Your task to perform on an android device: turn on translation in the chrome app Image 0: 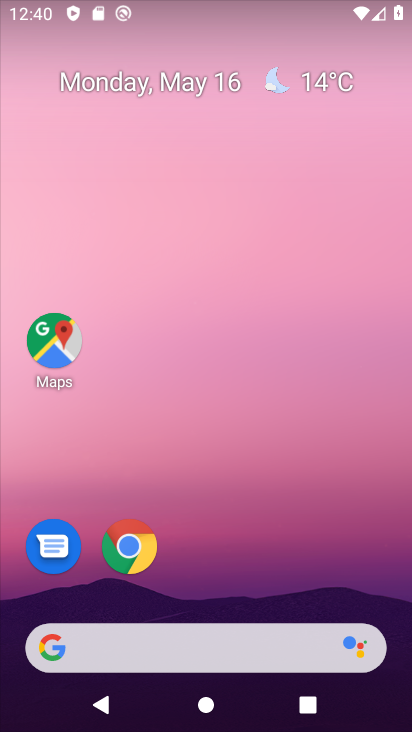
Step 0: drag from (197, 672) to (372, 80)
Your task to perform on an android device: turn on translation in the chrome app Image 1: 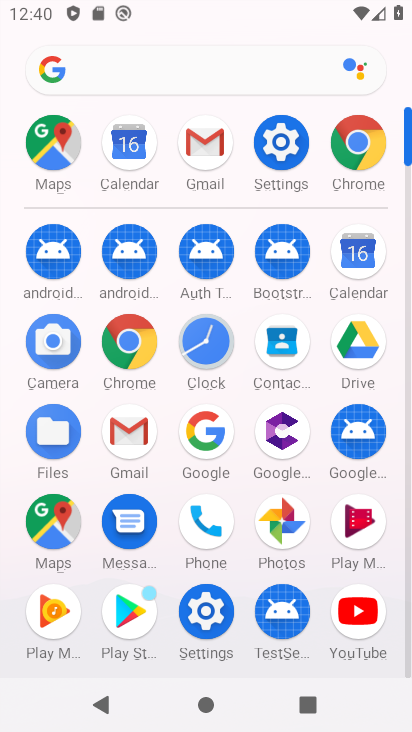
Step 1: click (360, 144)
Your task to perform on an android device: turn on translation in the chrome app Image 2: 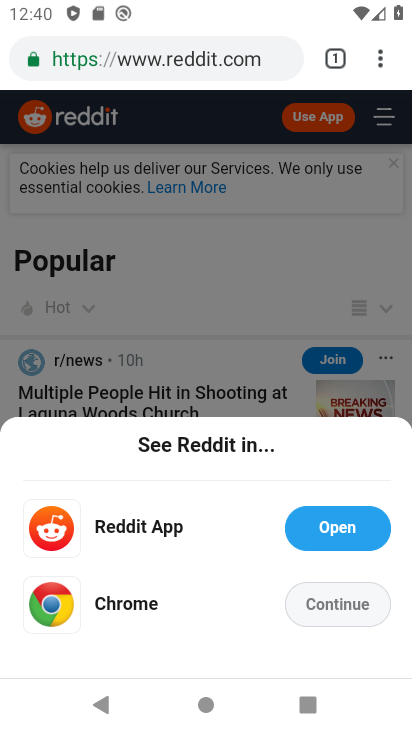
Step 2: click (376, 58)
Your task to perform on an android device: turn on translation in the chrome app Image 3: 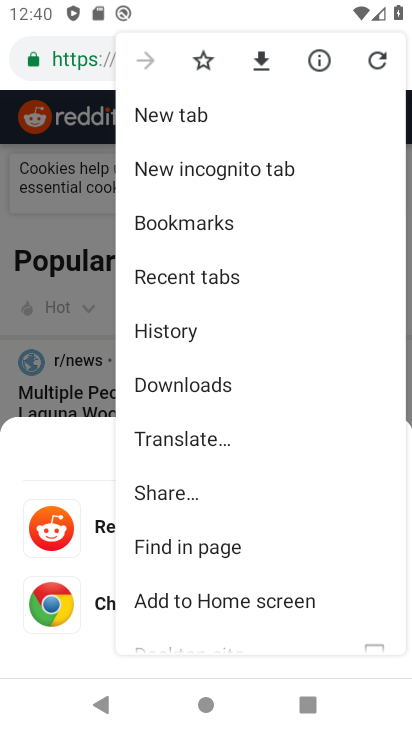
Step 3: drag from (179, 496) to (275, 380)
Your task to perform on an android device: turn on translation in the chrome app Image 4: 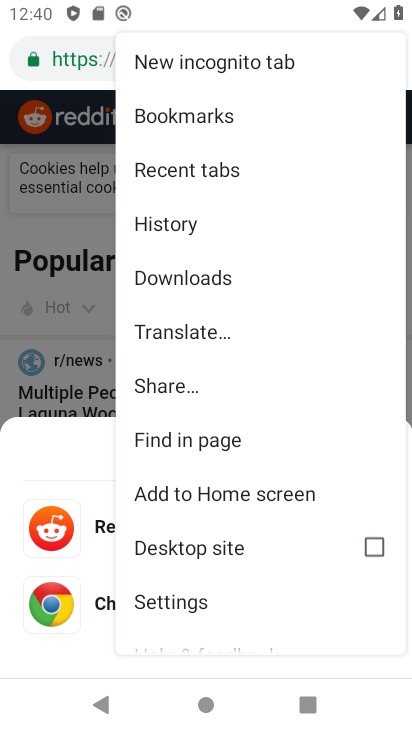
Step 4: click (173, 592)
Your task to perform on an android device: turn on translation in the chrome app Image 5: 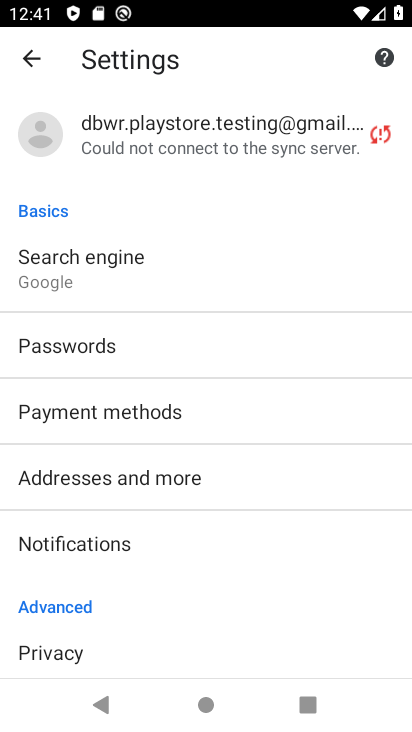
Step 5: drag from (85, 636) to (184, 371)
Your task to perform on an android device: turn on translation in the chrome app Image 6: 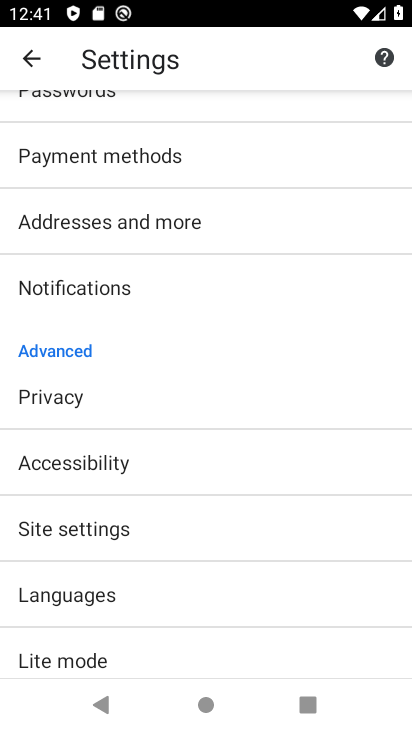
Step 6: drag from (103, 623) to (176, 474)
Your task to perform on an android device: turn on translation in the chrome app Image 7: 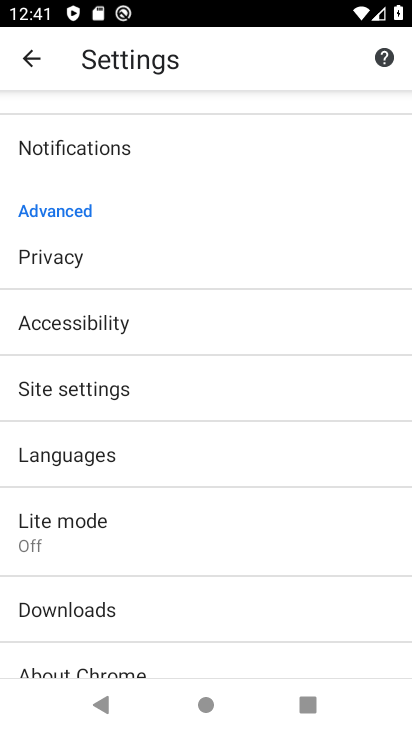
Step 7: click (117, 456)
Your task to perform on an android device: turn on translation in the chrome app Image 8: 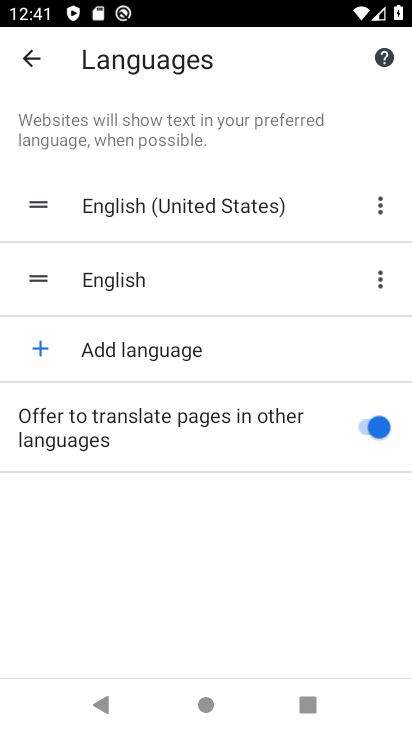
Step 8: click (262, 379)
Your task to perform on an android device: turn on translation in the chrome app Image 9: 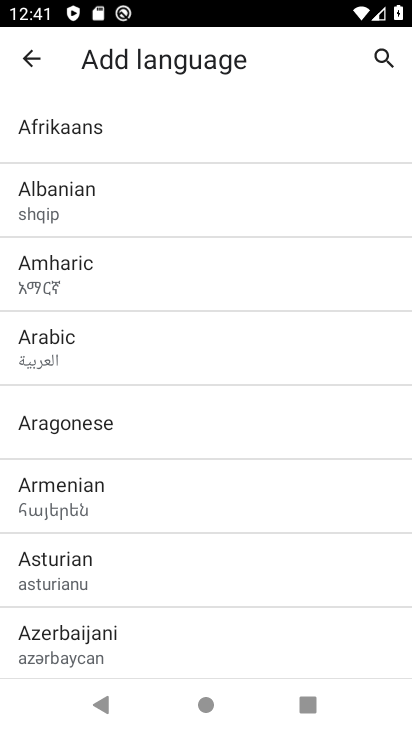
Step 9: click (24, 65)
Your task to perform on an android device: turn on translation in the chrome app Image 10: 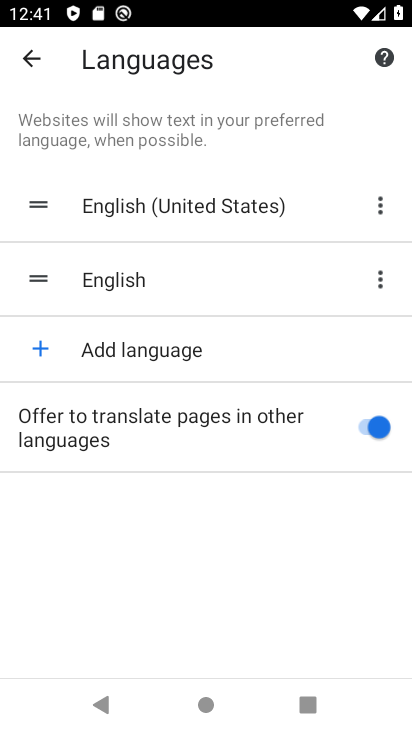
Step 10: click (362, 416)
Your task to perform on an android device: turn on translation in the chrome app Image 11: 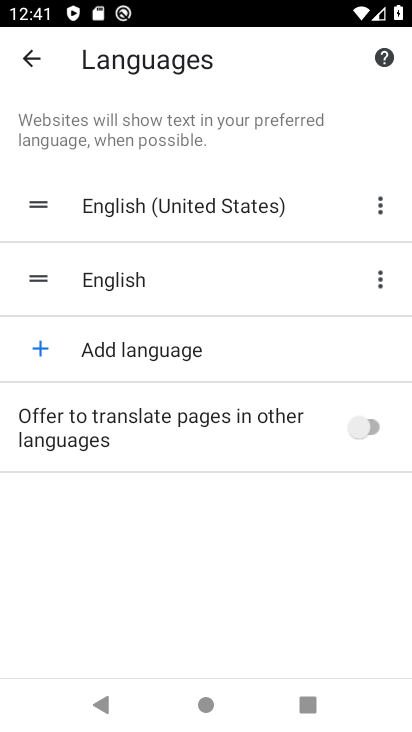
Step 11: click (362, 416)
Your task to perform on an android device: turn on translation in the chrome app Image 12: 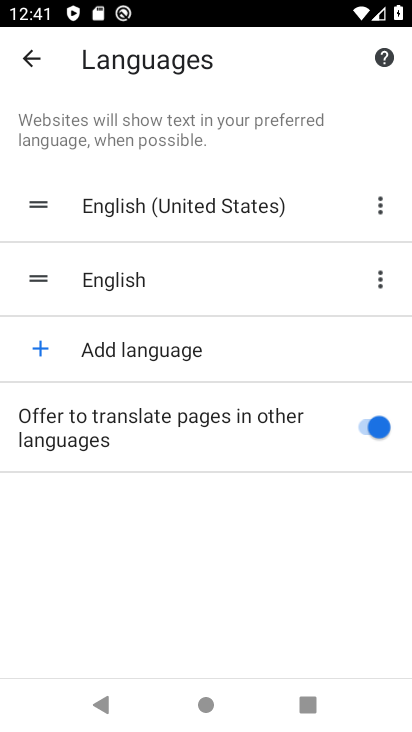
Step 12: task complete